Your task to perform on an android device: Search for seafood restaurants on Google Maps Image 0: 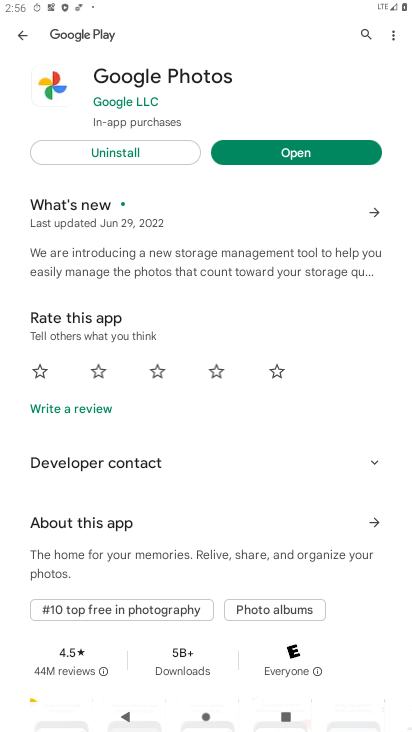
Step 0: press home button
Your task to perform on an android device: Search for seafood restaurants on Google Maps Image 1: 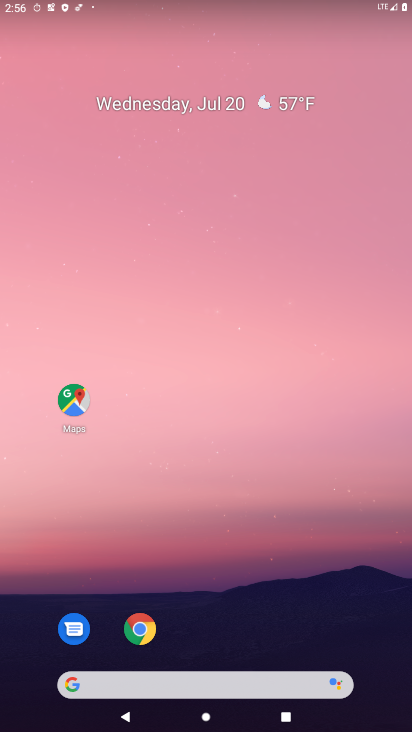
Step 1: drag from (186, 686) to (144, 52)
Your task to perform on an android device: Search for seafood restaurants on Google Maps Image 2: 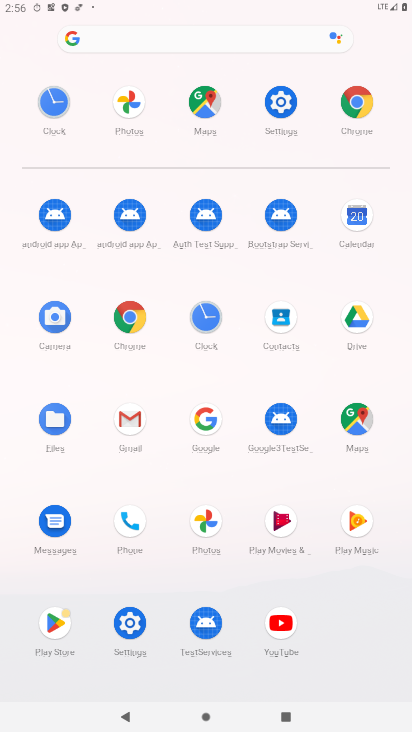
Step 2: click (358, 424)
Your task to perform on an android device: Search for seafood restaurants on Google Maps Image 3: 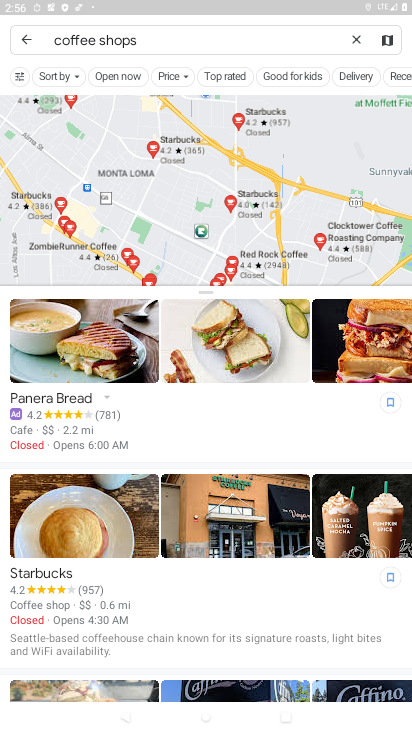
Step 3: click (356, 41)
Your task to perform on an android device: Search for seafood restaurants on Google Maps Image 4: 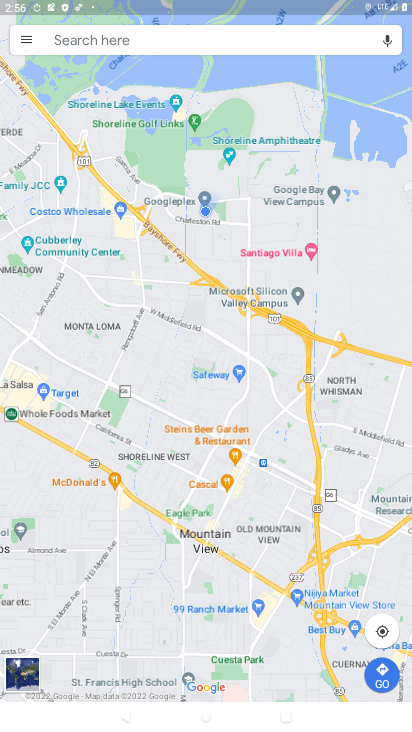
Step 4: click (169, 43)
Your task to perform on an android device: Search for seafood restaurants on Google Maps Image 5: 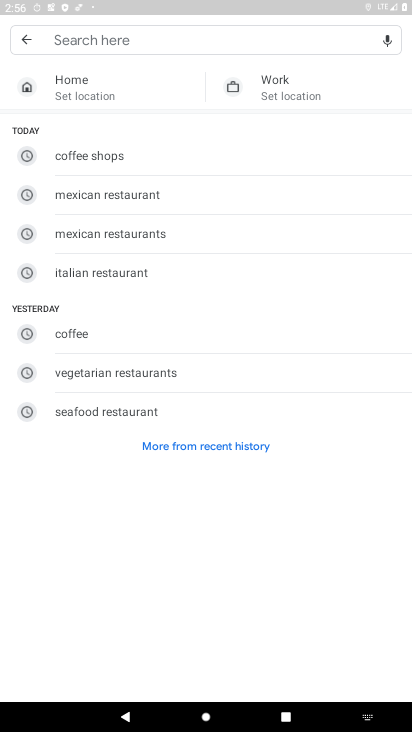
Step 5: click (131, 412)
Your task to perform on an android device: Search for seafood restaurants on Google Maps Image 6: 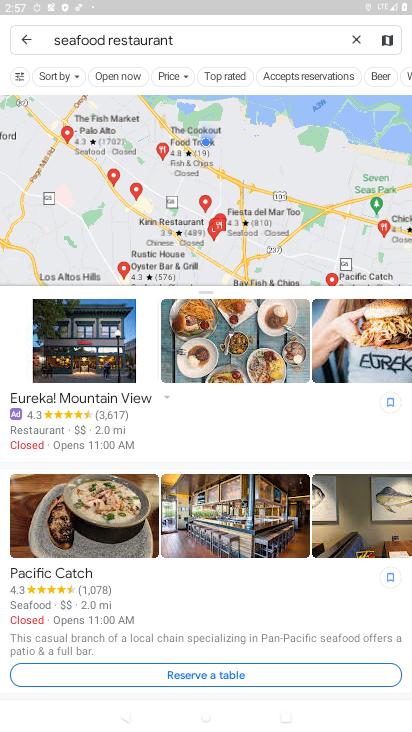
Step 6: task complete